Your task to perform on an android device: check data usage Image 0: 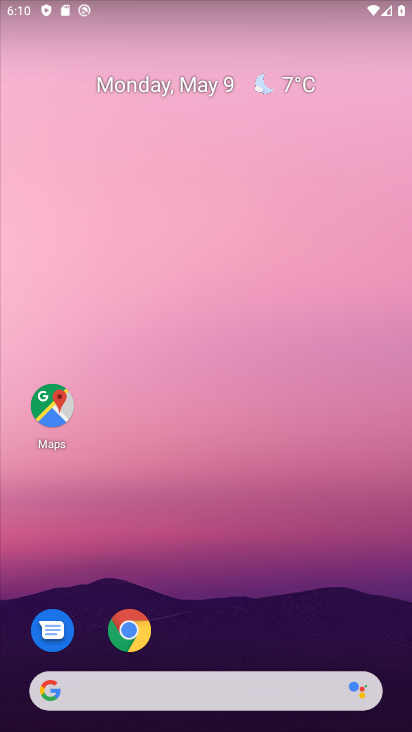
Step 0: drag from (272, 320) to (275, 224)
Your task to perform on an android device: check data usage Image 1: 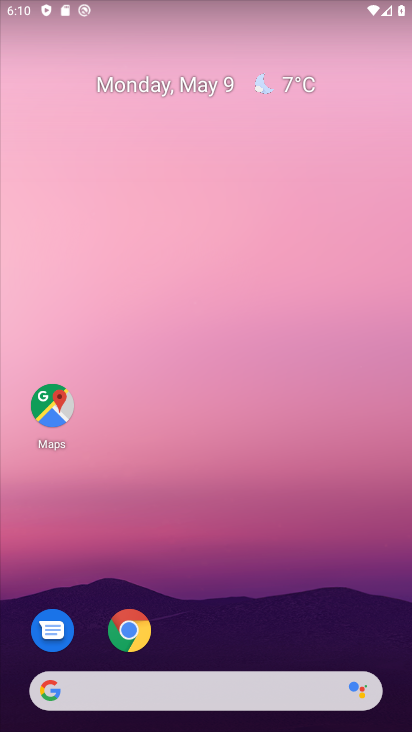
Step 1: drag from (269, 604) to (249, 134)
Your task to perform on an android device: check data usage Image 2: 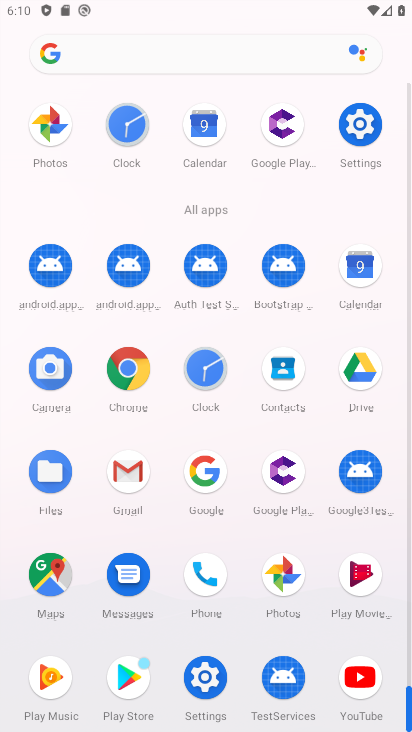
Step 2: drag from (253, 614) to (242, 313)
Your task to perform on an android device: check data usage Image 3: 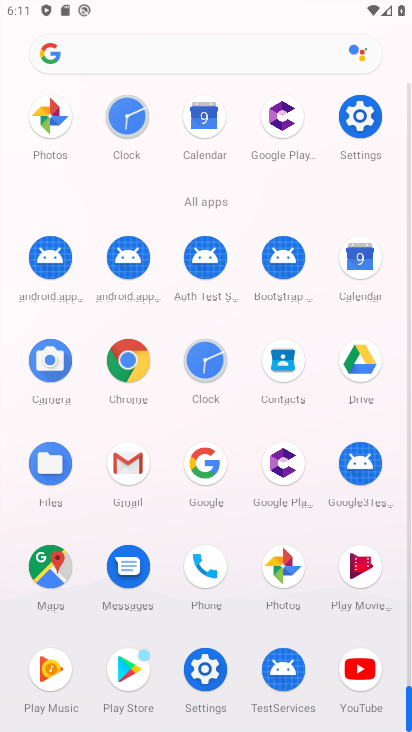
Step 3: click (370, 133)
Your task to perform on an android device: check data usage Image 4: 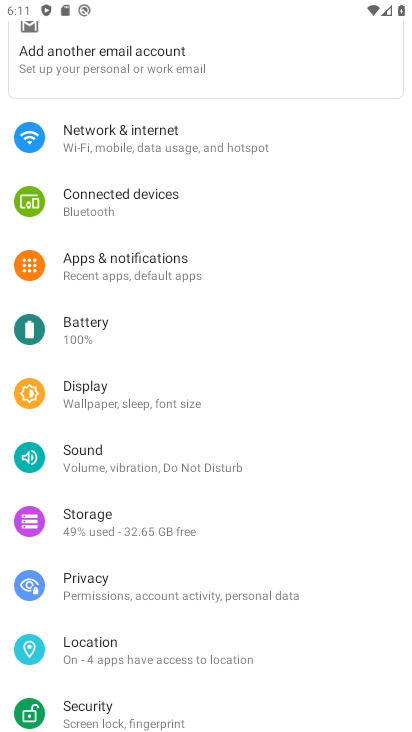
Step 4: click (121, 151)
Your task to perform on an android device: check data usage Image 5: 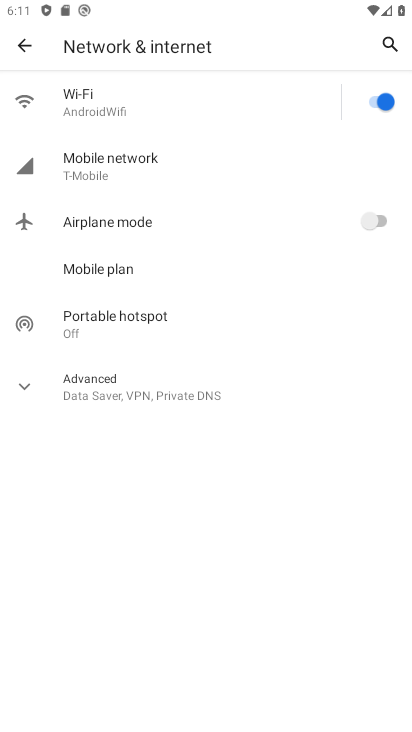
Step 5: click (135, 176)
Your task to perform on an android device: check data usage Image 6: 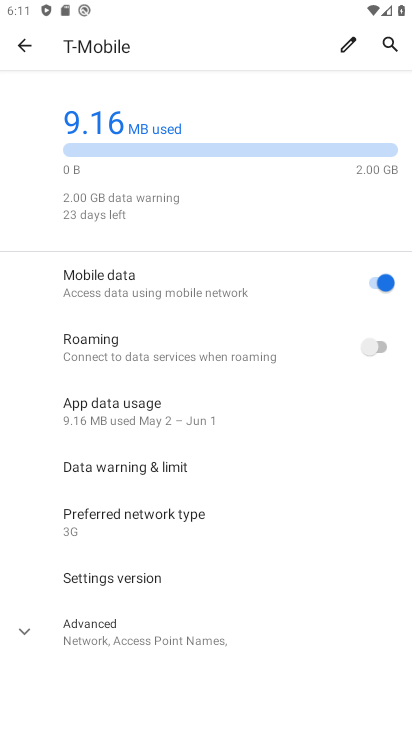
Step 6: task complete